Your task to perform on an android device: Set the phone to "Do not disturb". Image 0: 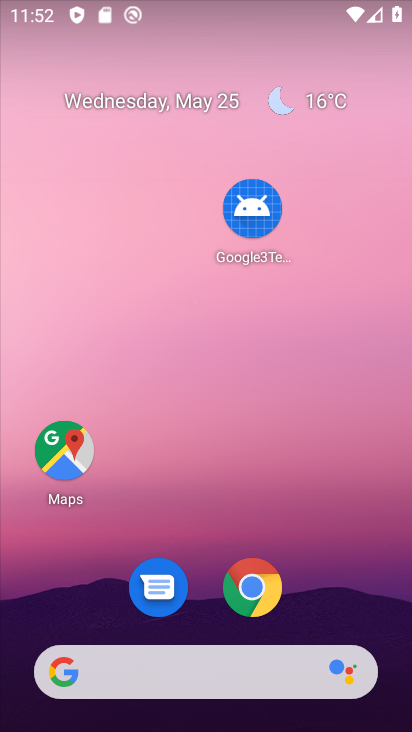
Step 0: drag from (205, 664) to (272, 77)
Your task to perform on an android device: Set the phone to "Do not disturb". Image 1: 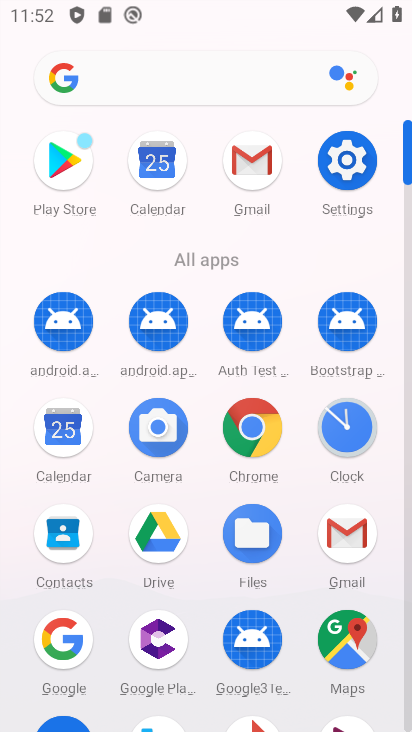
Step 1: click (350, 160)
Your task to perform on an android device: Set the phone to "Do not disturb". Image 2: 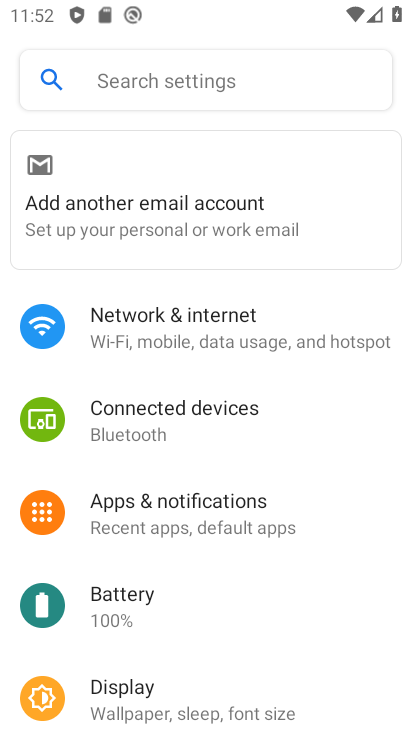
Step 2: drag from (115, 697) to (201, 311)
Your task to perform on an android device: Set the phone to "Do not disturb". Image 3: 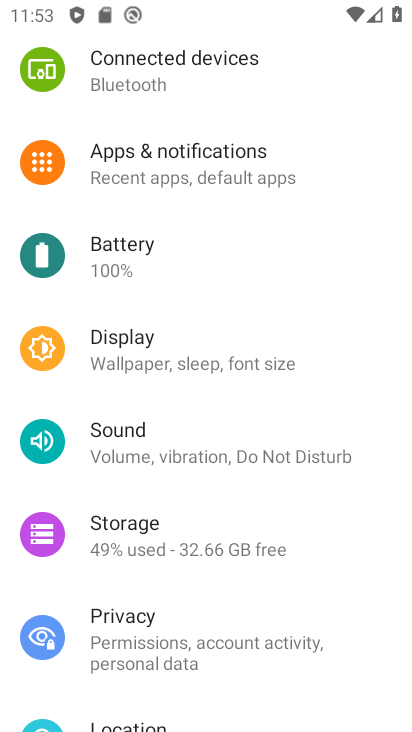
Step 3: click (166, 458)
Your task to perform on an android device: Set the phone to "Do not disturb". Image 4: 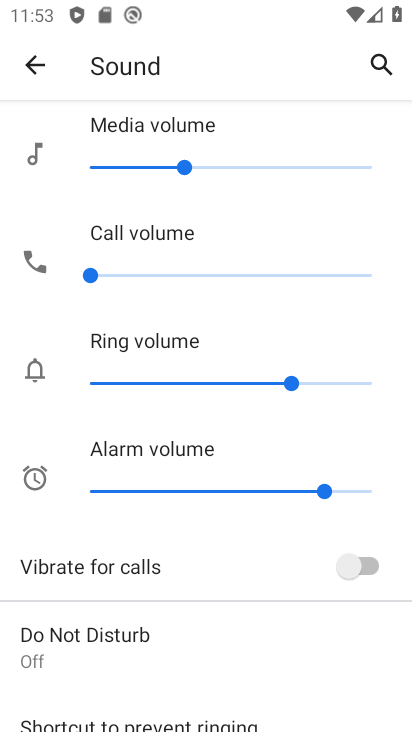
Step 4: click (118, 619)
Your task to perform on an android device: Set the phone to "Do not disturb". Image 5: 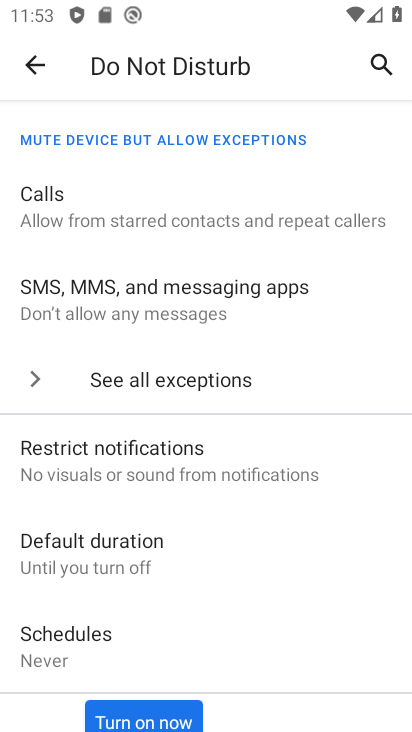
Step 5: click (164, 708)
Your task to perform on an android device: Set the phone to "Do not disturb". Image 6: 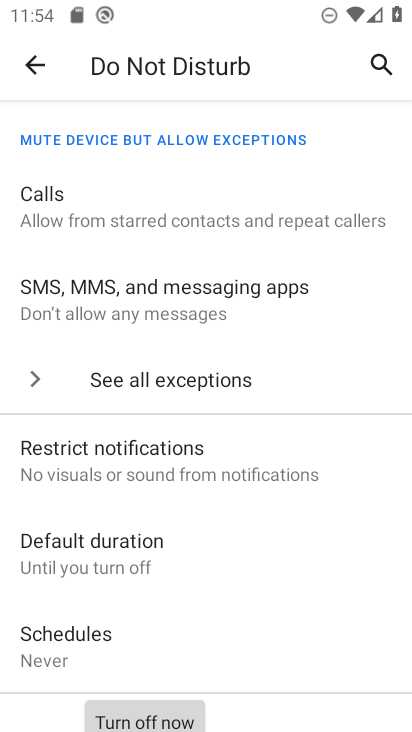
Step 6: task complete